Your task to perform on an android device: Go to settings Image 0: 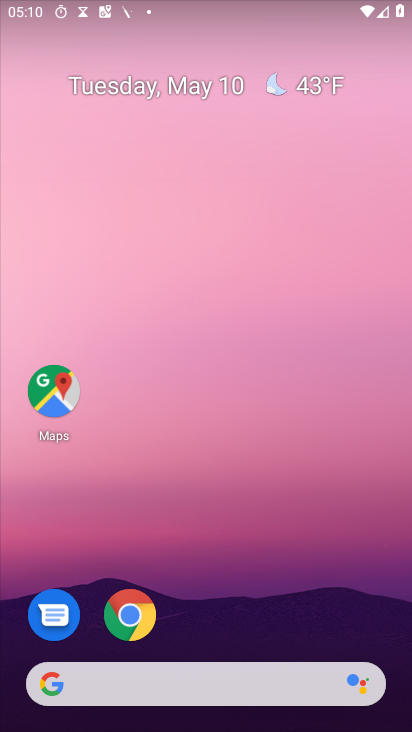
Step 0: drag from (345, 649) to (327, 85)
Your task to perform on an android device: Go to settings Image 1: 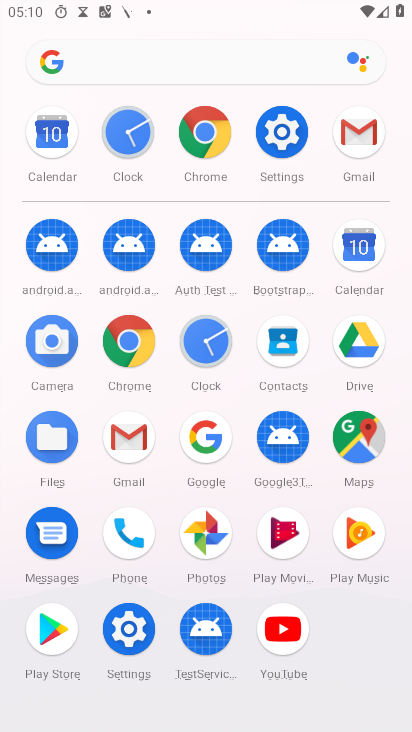
Step 1: click (287, 134)
Your task to perform on an android device: Go to settings Image 2: 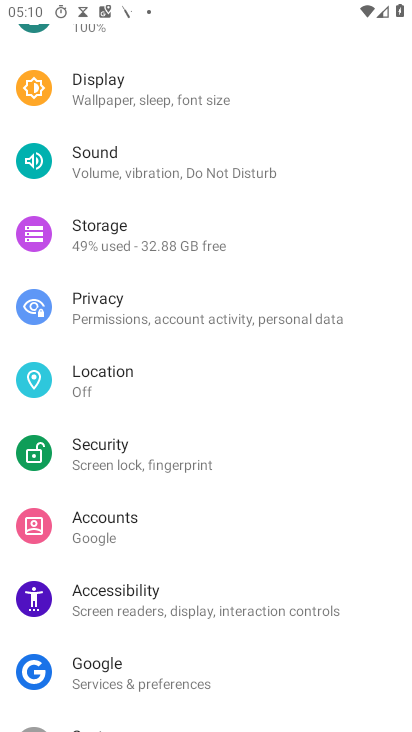
Step 2: task complete